Your task to perform on an android device: change notifications settings Image 0: 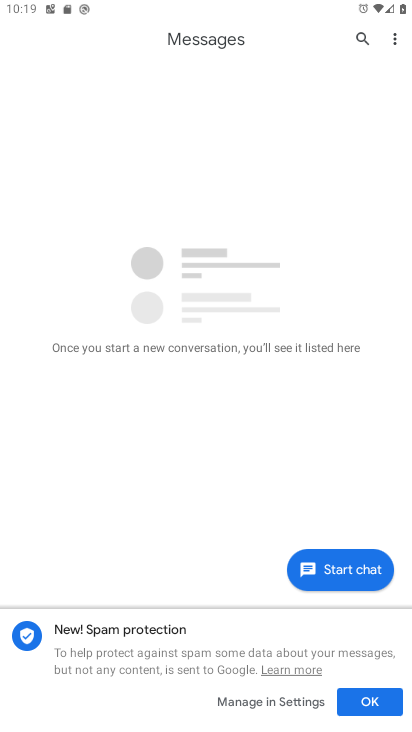
Step 0: click (377, 710)
Your task to perform on an android device: change notifications settings Image 1: 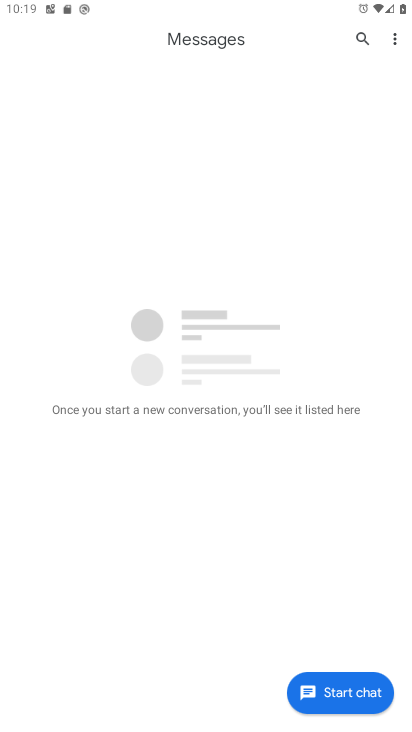
Step 1: press home button
Your task to perform on an android device: change notifications settings Image 2: 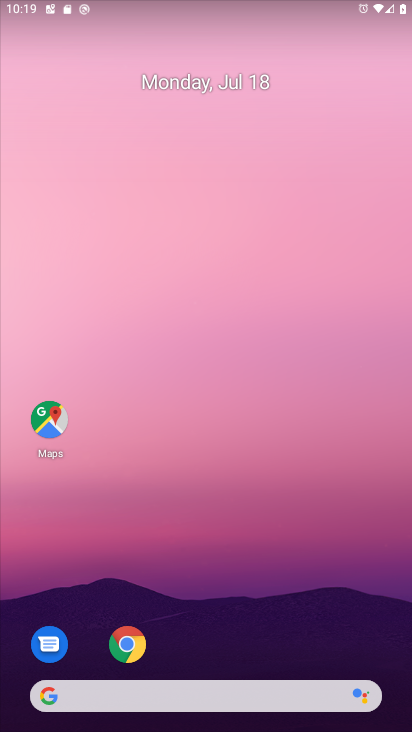
Step 2: drag from (289, 655) to (276, 112)
Your task to perform on an android device: change notifications settings Image 3: 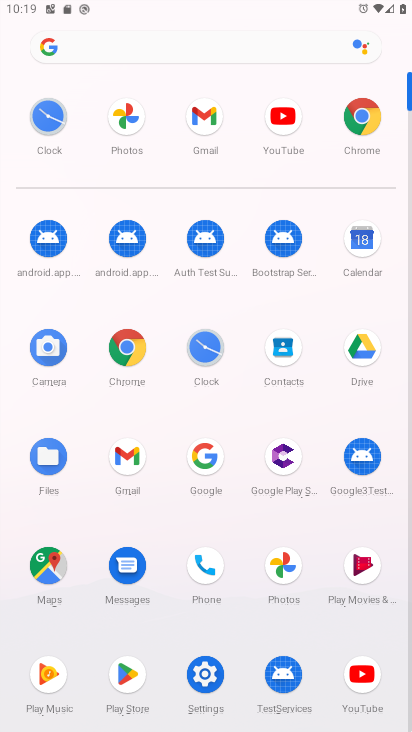
Step 3: click (207, 663)
Your task to perform on an android device: change notifications settings Image 4: 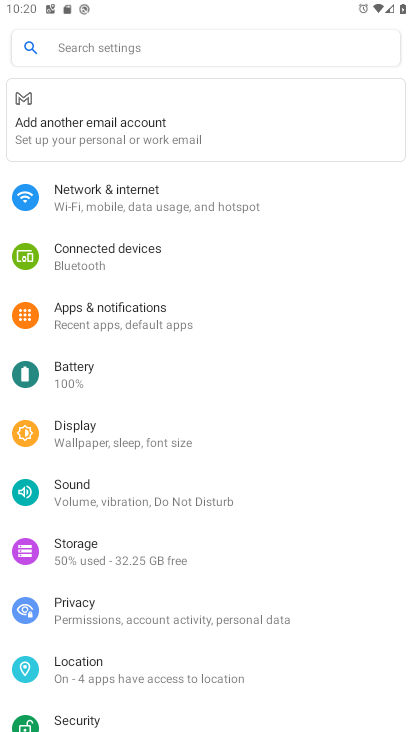
Step 4: click (186, 330)
Your task to perform on an android device: change notifications settings Image 5: 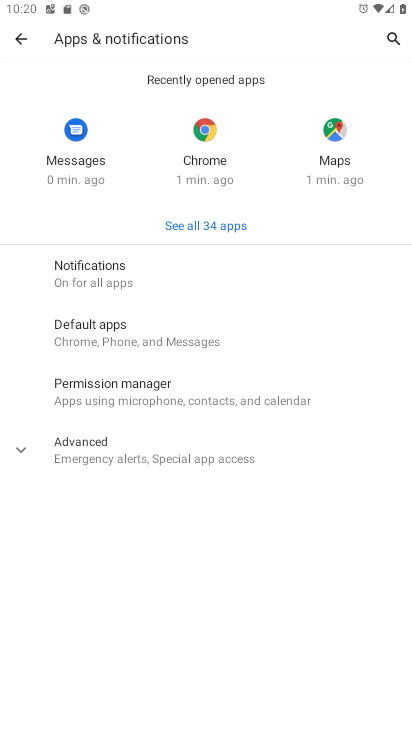
Step 5: click (142, 288)
Your task to perform on an android device: change notifications settings Image 6: 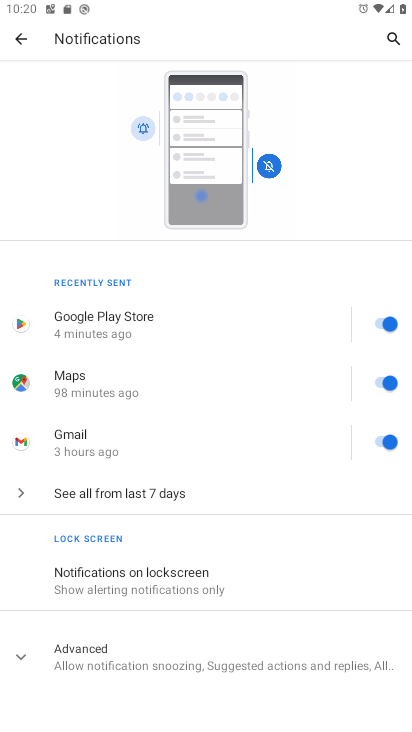
Step 6: task complete